Your task to perform on an android device: move a message to another label in the gmail app Image 0: 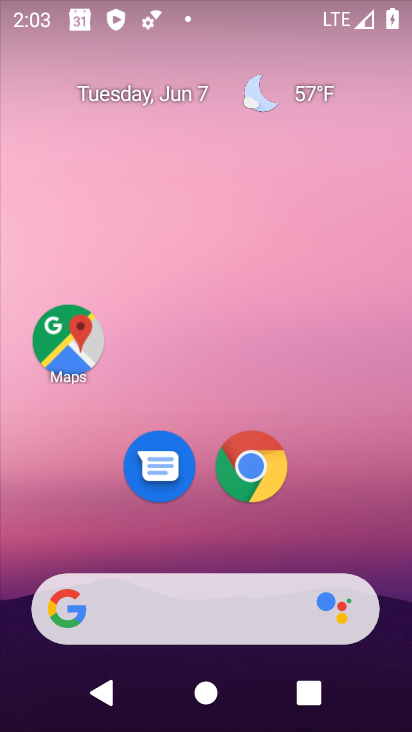
Step 0: drag from (185, 556) to (253, 24)
Your task to perform on an android device: move a message to another label in the gmail app Image 1: 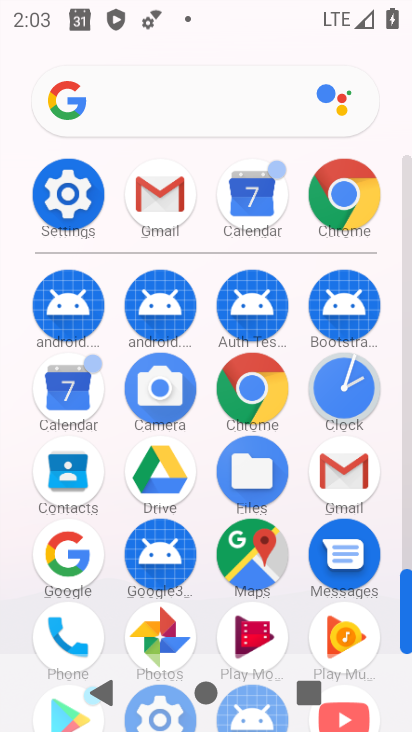
Step 1: click (150, 194)
Your task to perform on an android device: move a message to another label in the gmail app Image 2: 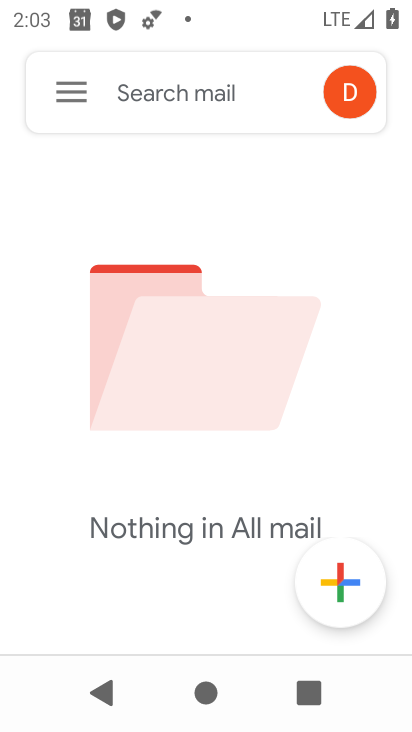
Step 2: task complete